Your task to perform on an android device: What's the news in India? Image 0: 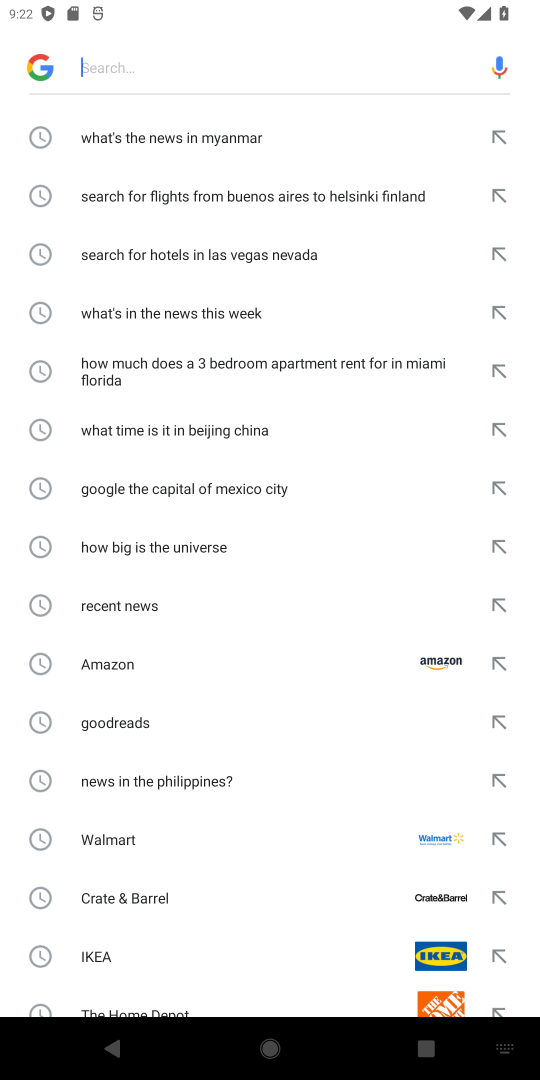
Step 0: press home button
Your task to perform on an android device: What's the news in India? Image 1: 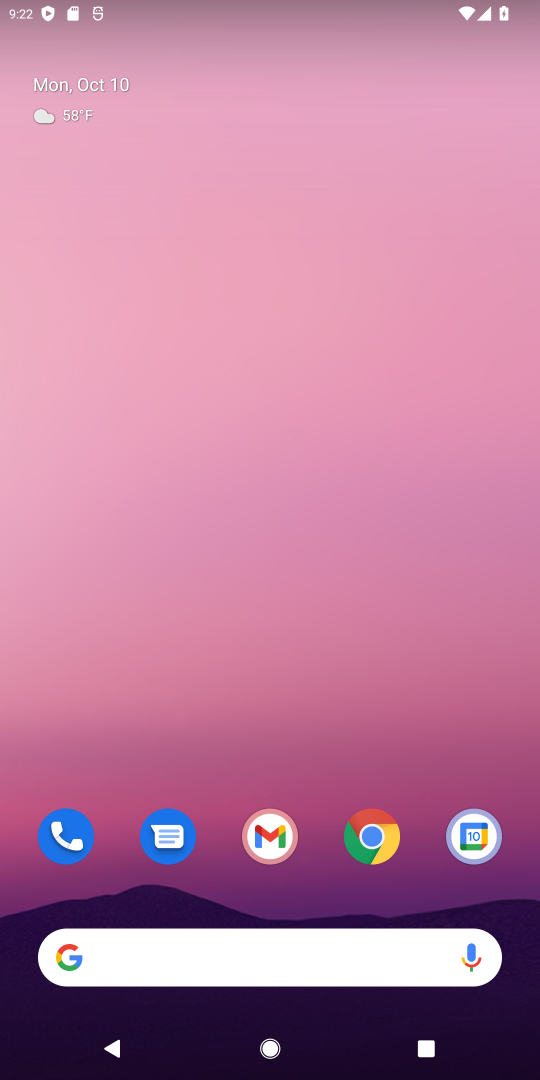
Step 1: drag from (259, 906) to (273, 69)
Your task to perform on an android device: What's the news in India? Image 2: 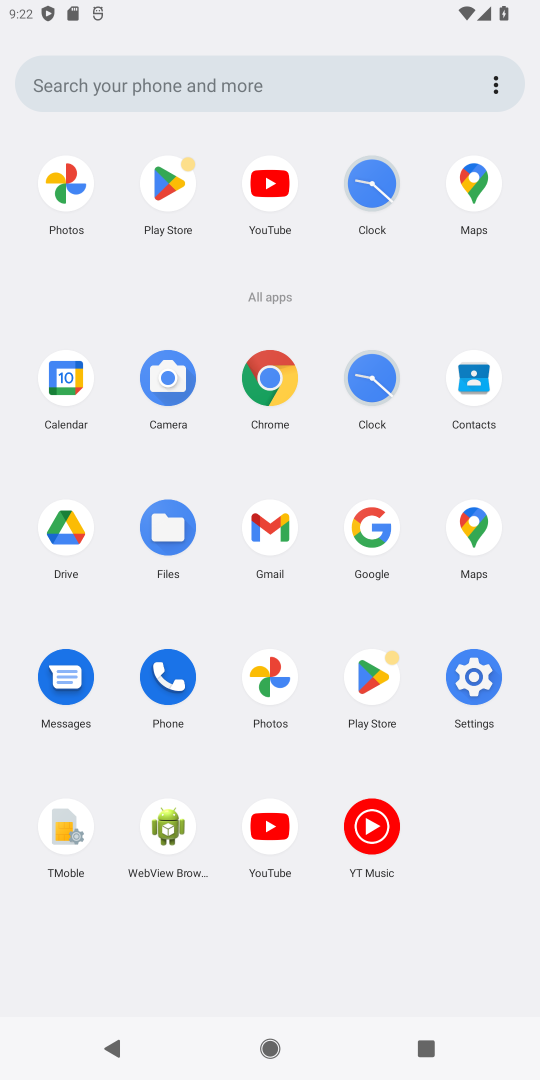
Step 2: click (371, 525)
Your task to perform on an android device: What's the news in India? Image 3: 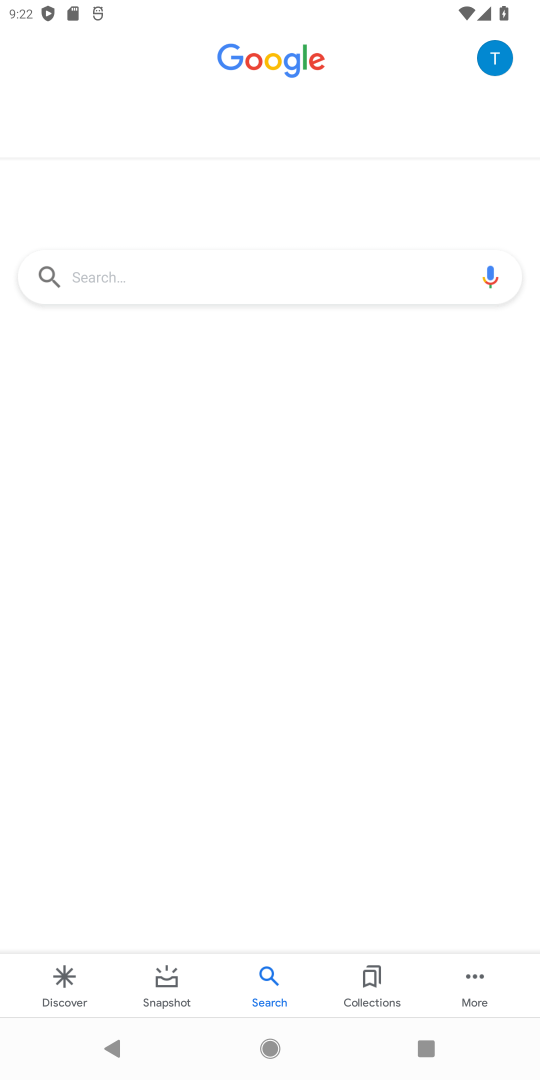
Step 3: click (142, 274)
Your task to perform on an android device: What's the news in India? Image 4: 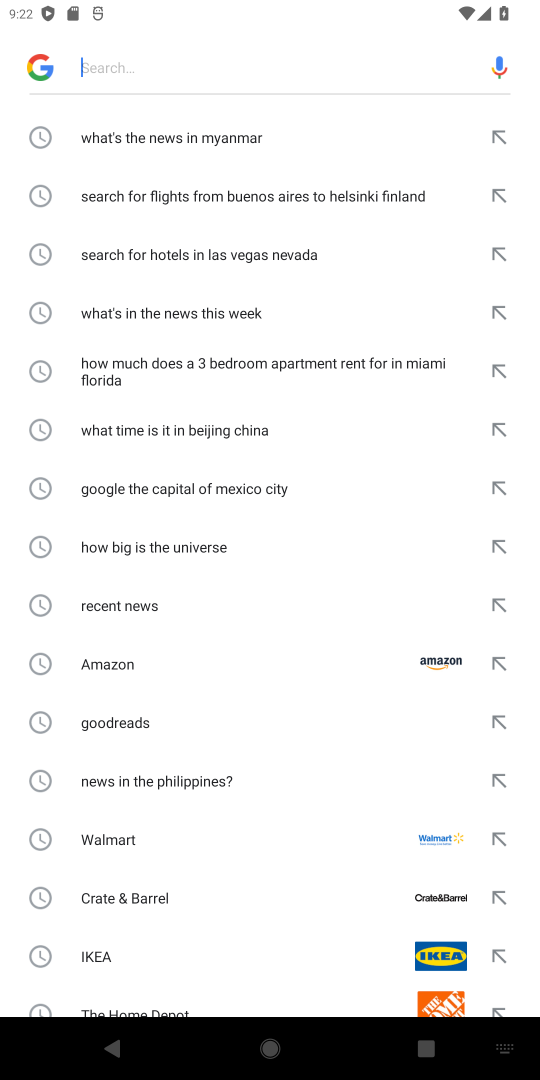
Step 4: type "What's the news in India?"
Your task to perform on an android device: What's the news in India? Image 5: 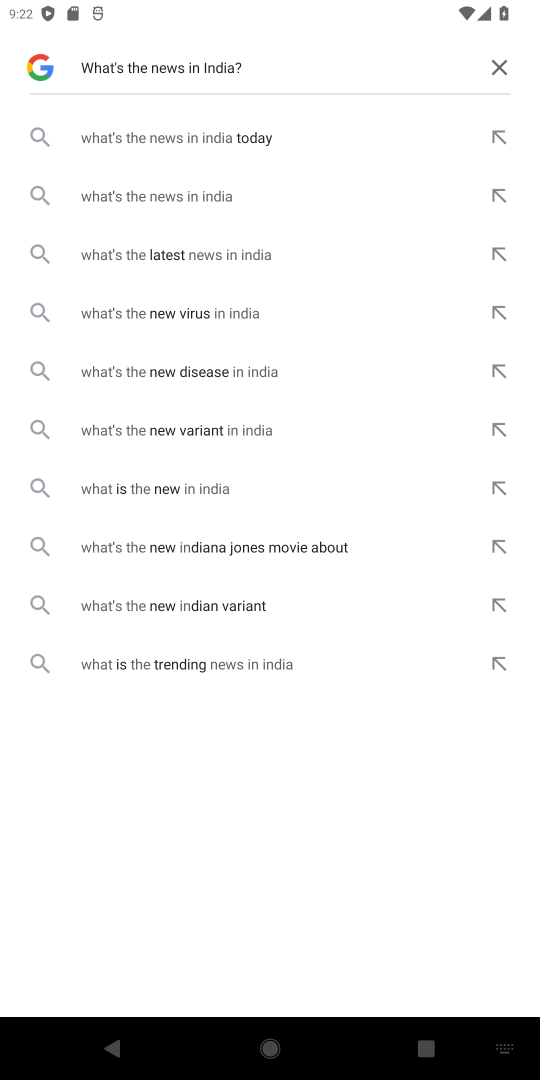
Step 5: click (183, 138)
Your task to perform on an android device: What's the news in India? Image 6: 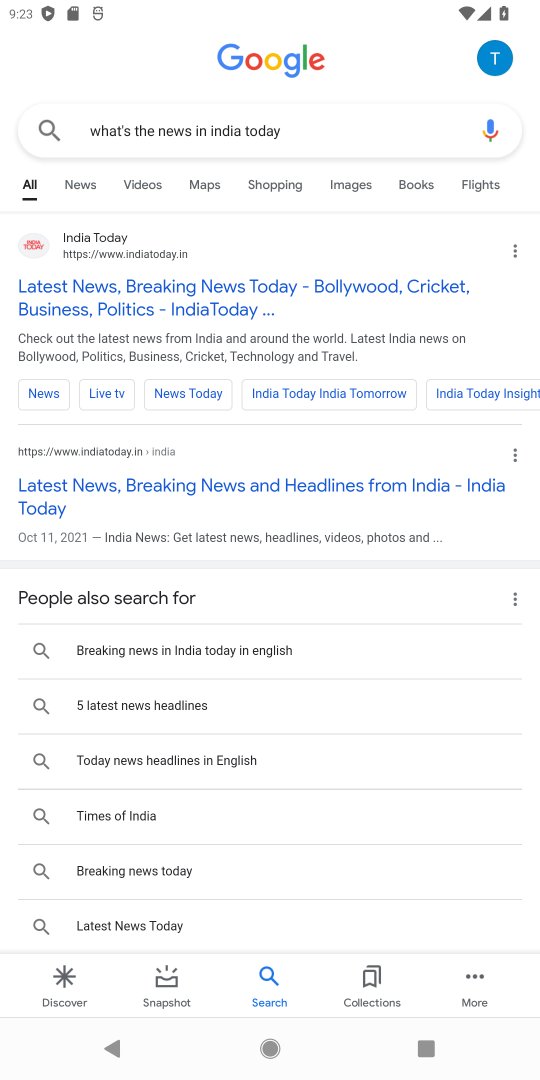
Step 6: click (190, 299)
Your task to perform on an android device: What's the news in India? Image 7: 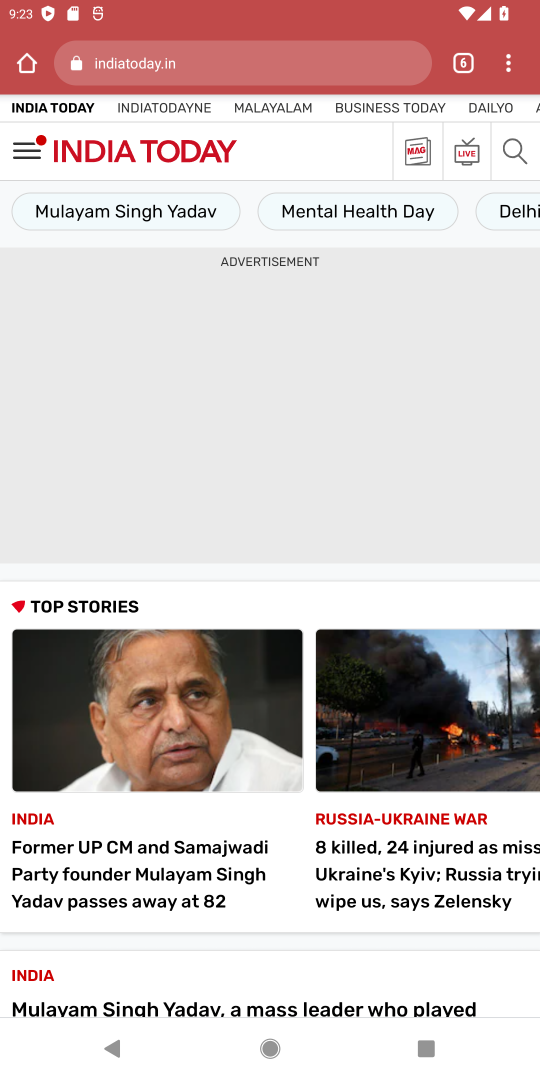
Step 7: task complete